Your task to perform on an android device: search for starred emails in the gmail app Image 0: 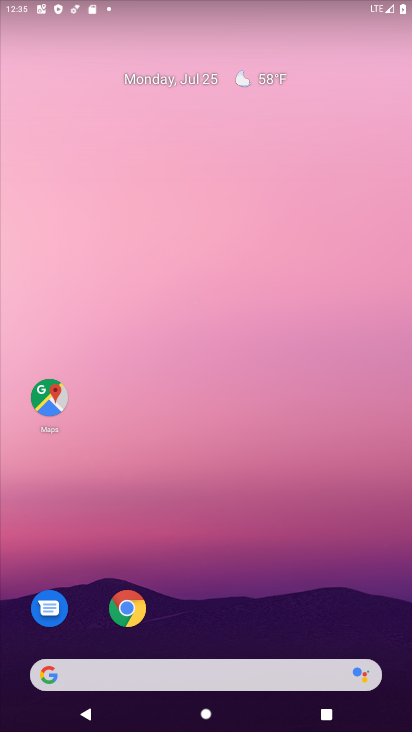
Step 0: drag from (209, 672) to (250, 121)
Your task to perform on an android device: search for starred emails in the gmail app Image 1: 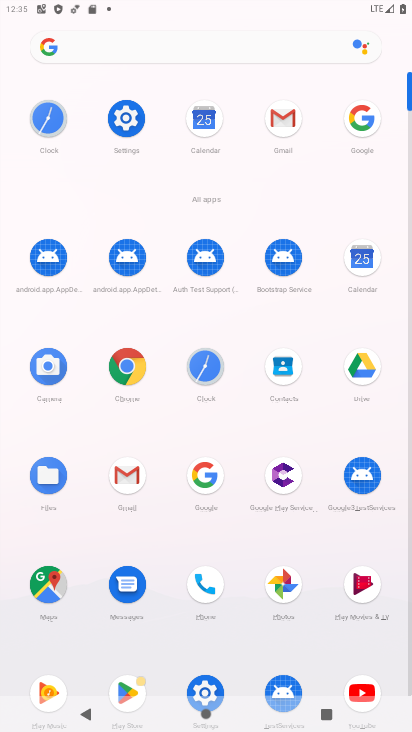
Step 1: click (283, 116)
Your task to perform on an android device: search for starred emails in the gmail app Image 2: 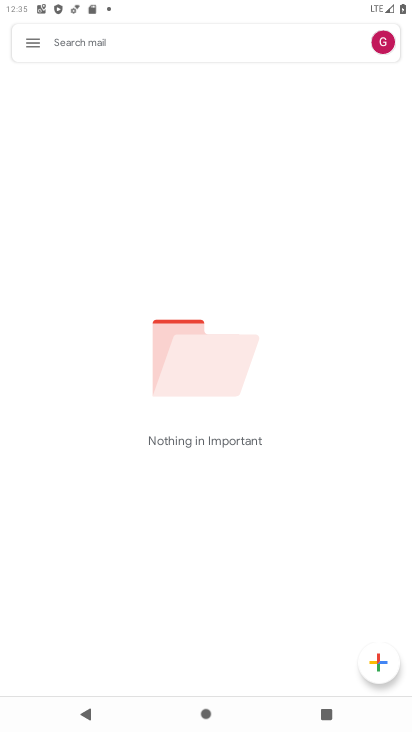
Step 2: click (33, 43)
Your task to perform on an android device: search for starred emails in the gmail app Image 3: 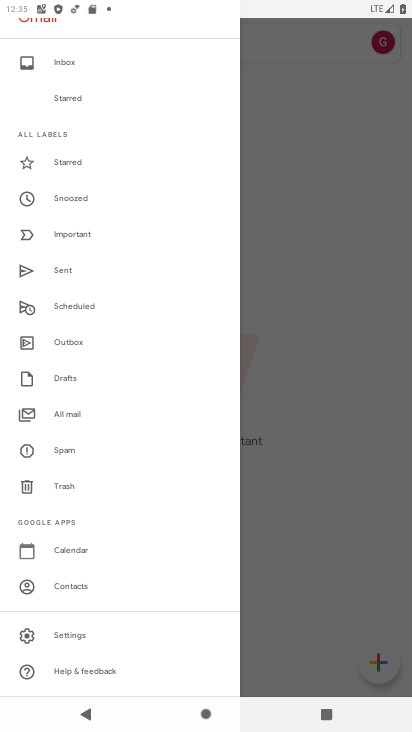
Step 3: click (69, 161)
Your task to perform on an android device: search for starred emails in the gmail app Image 4: 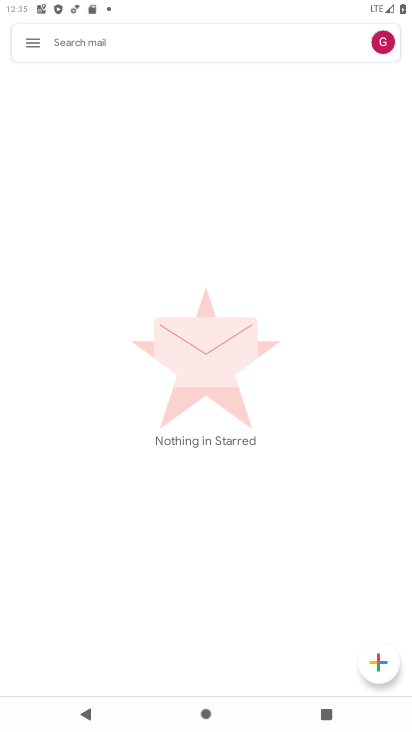
Step 4: click (35, 36)
Your task to perform on an android device: search for starred emails in the gmail app Image 5: 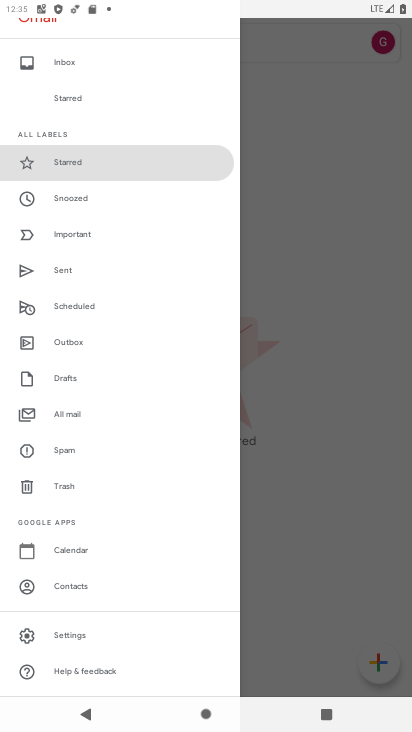
Step 5: click (78, 65)
Your task to perform on an android device: search for starred emails in the gmail app Image 6: 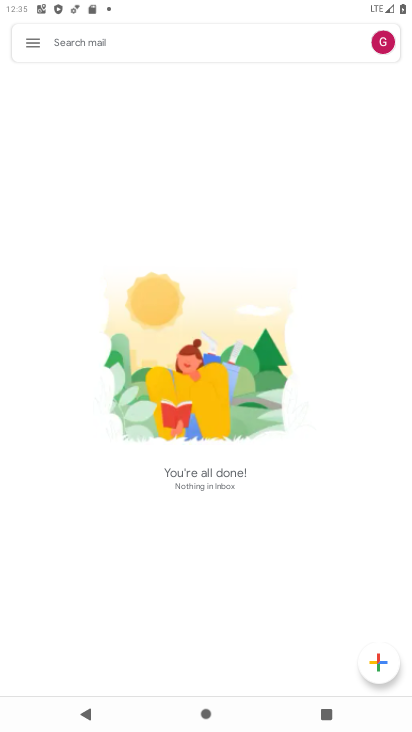
Step 6: click (34, 48)
Your task to perform on an android device: search for starred emails in the gmail app Image 7: 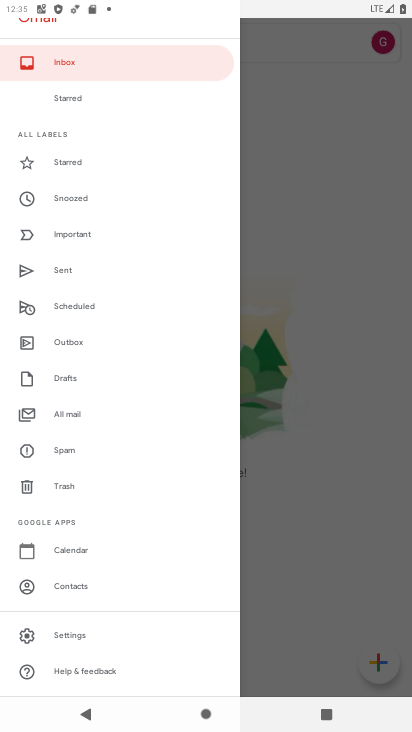
Step 7: click (83, 197)
Your task to perform on an android device: search for starred emails in the gmail app Image 8: 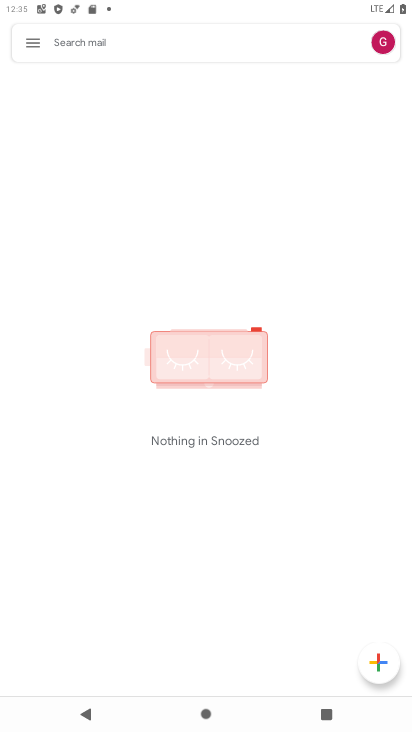
Step 8: click (37, 48)
Your task to perform on an android device: search for starred emails in the gmail app Image 9: 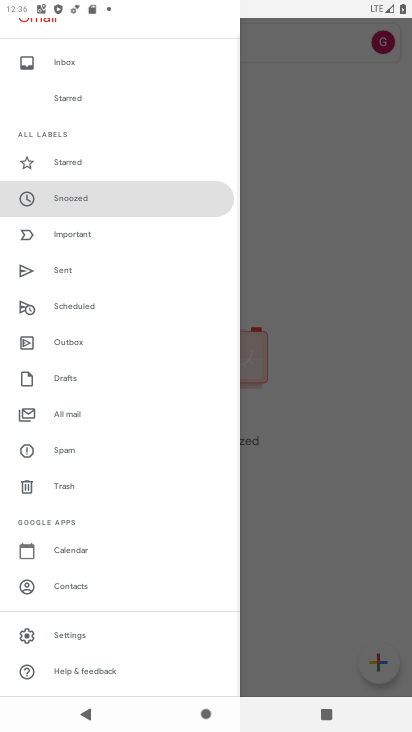
Step 9: click (84, 160)
Your task to perform on an android device: search for starred emails in the gmail app Image 10: 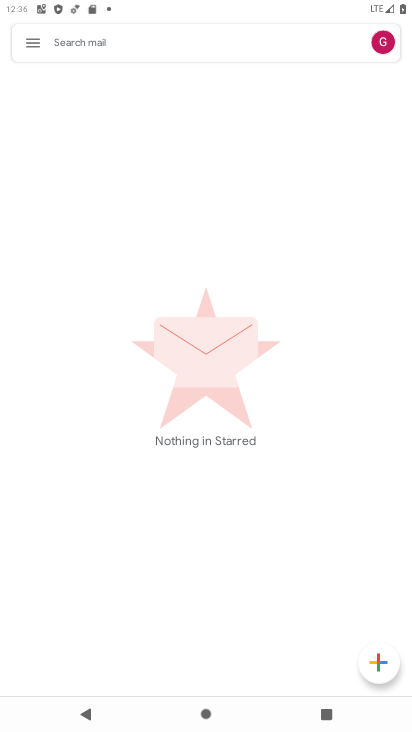
Step 10: task complete